Your task to perform on an android device: change the clock display to digital Image 0: 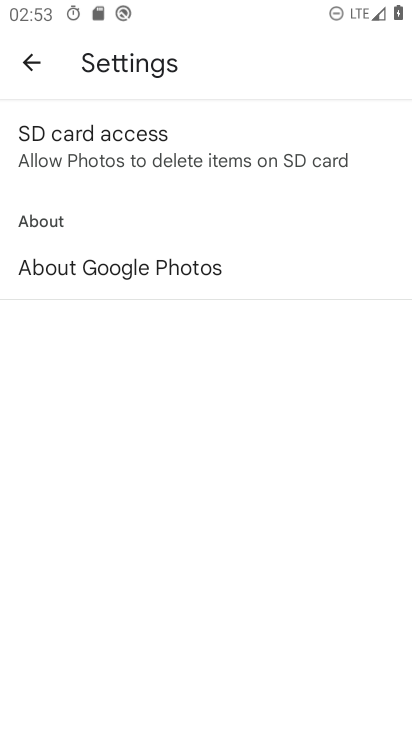
Step 0: press home button
Your task to perform on an android device: change the clock display to digital Image 1: 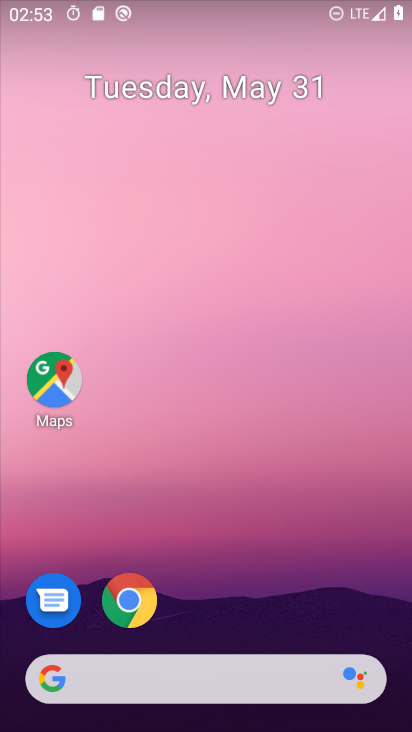
Step 1: drag from (191, 722) to (172, 123)
Your task to perform on an android device: change the clock display to digital Image 2: 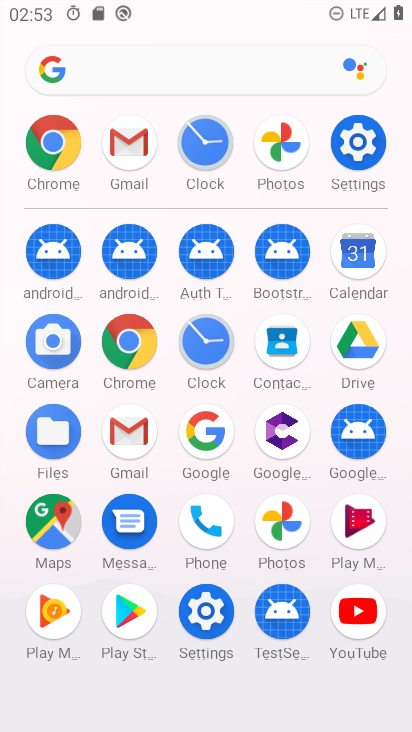
Step 2: click (211, 348)
Your task to perform on an android device: change the clock display to digital Image 3: 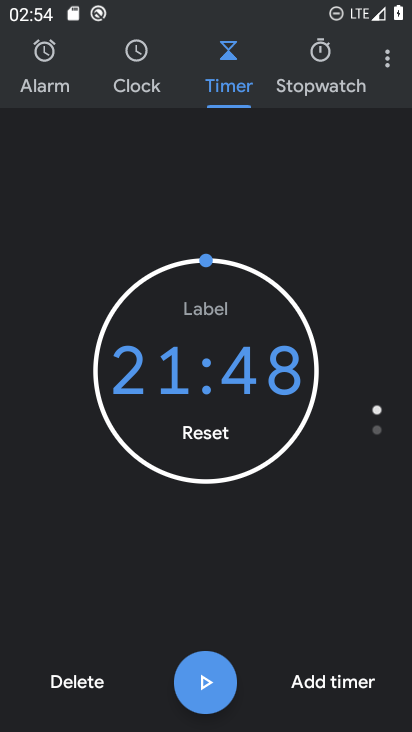
Step 3: click (388, 65)
Your task to perform on an android device: change the clock display to digital Image 4: 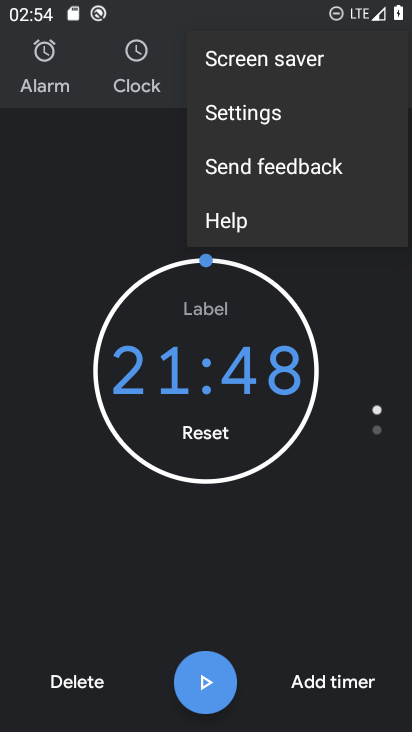
Step 4: click (244, 115)
Your task to perform on an android device: change the clock display to digital Image 5: 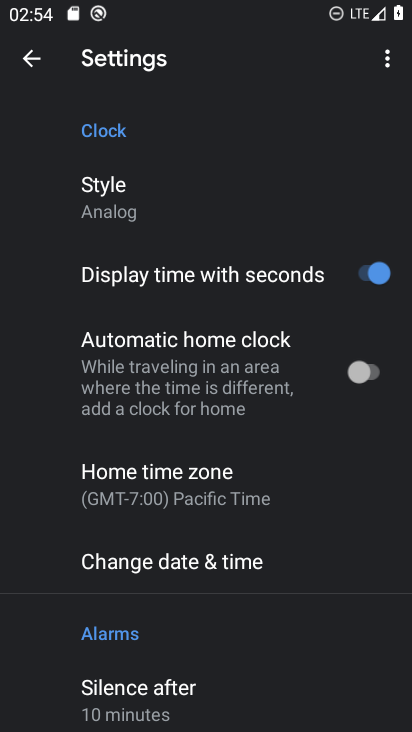
Step 5: drag from (155, 669) to (154, 296)
Your task to perform on an android device: change the clock display to digital Image 6: 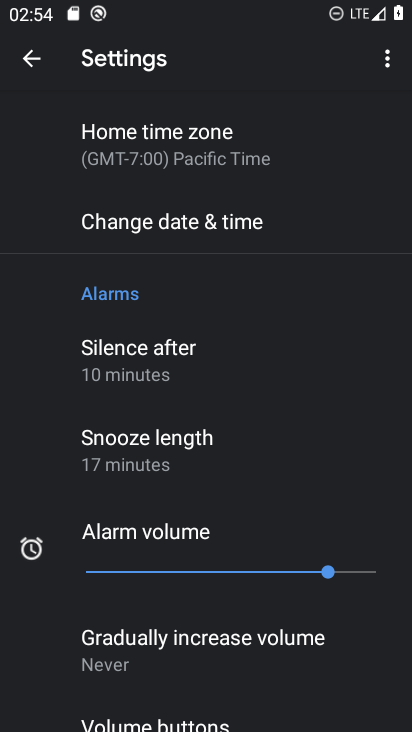
Step 6: drag from (191, 162) to (202, 450)
Your task to perform on an android device: change the clock display to digital Image 7: 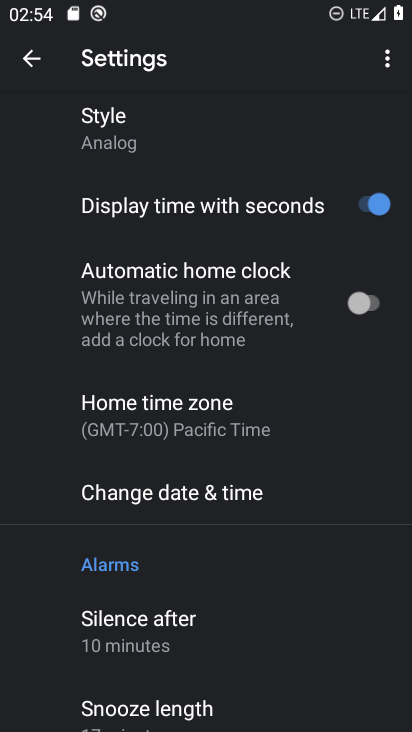
Step 7: drag from (146, 136) to (155, 491)
Your task to perform on an android device: change the clock display to digital Image 8: 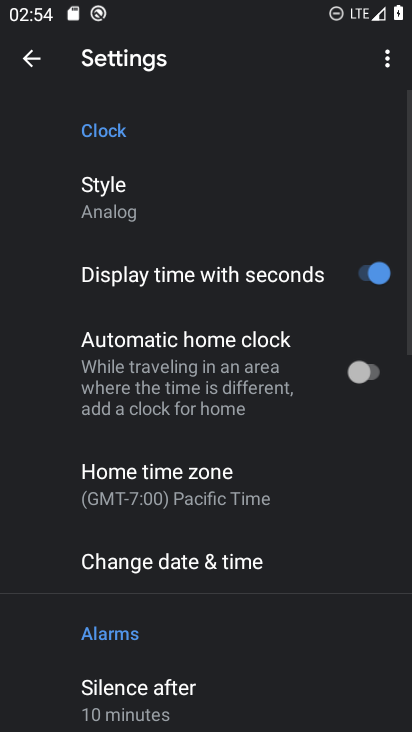
Step 8: click (105, 206)
Your task to perform on an android device: change the clock display to digital Image 9: 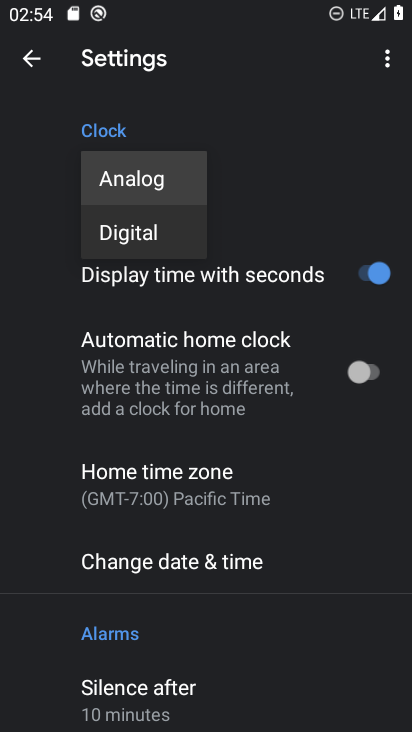
Step 9: click (126, 235)
Your task to perform on an android device: change the clock display to digital Image 10: 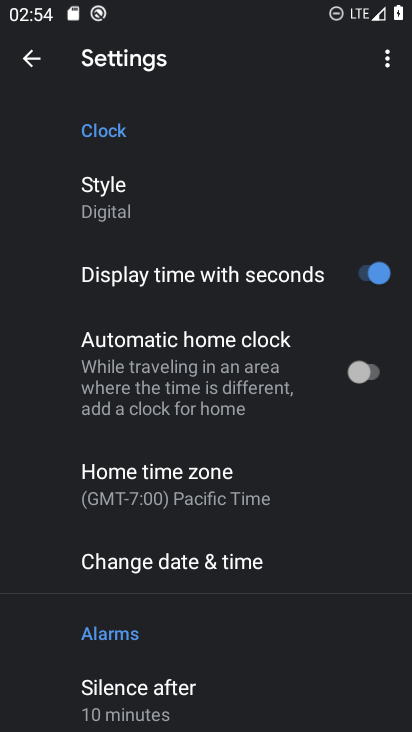
Step 10: task complete